Your task to perform on an android device: change the clock display to analog Image 0: 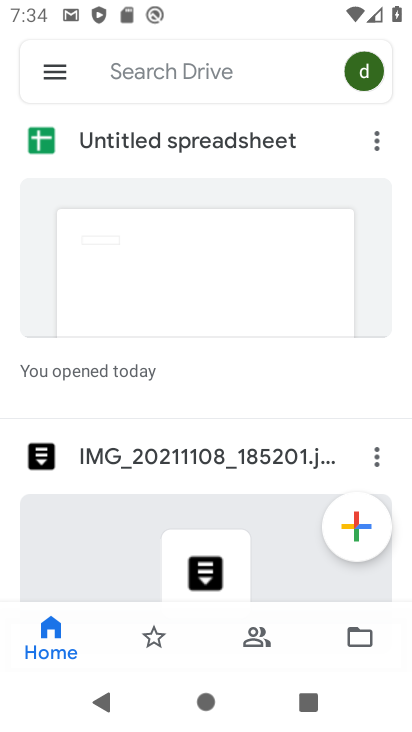
Step 0: press home button
Your task to perform on an android device: change the clock display to analog Image 1: 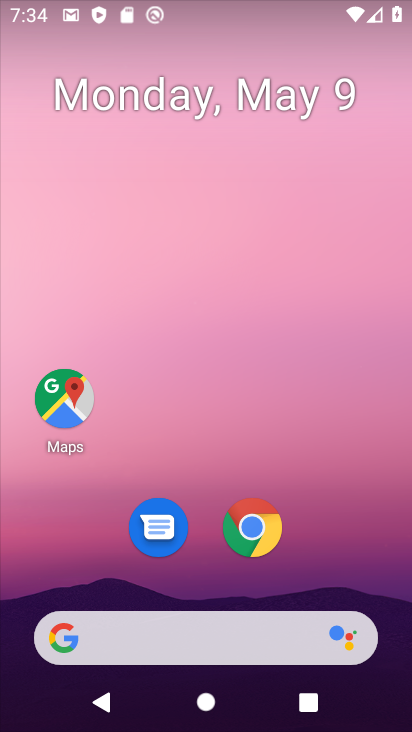
Step 1: drag from (217, 412) to (296, 0)
Your task to perform on an android device: change the clock display to analog Image 2: 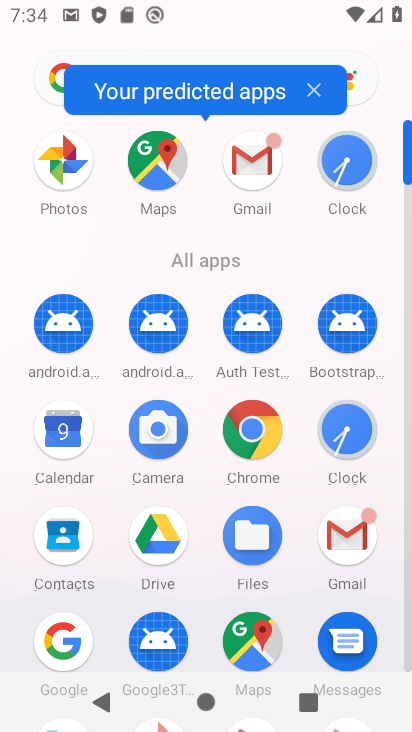
Step 2: click (329, 174)
Your task to perform on an android device: change the clock display to analog Image 3: 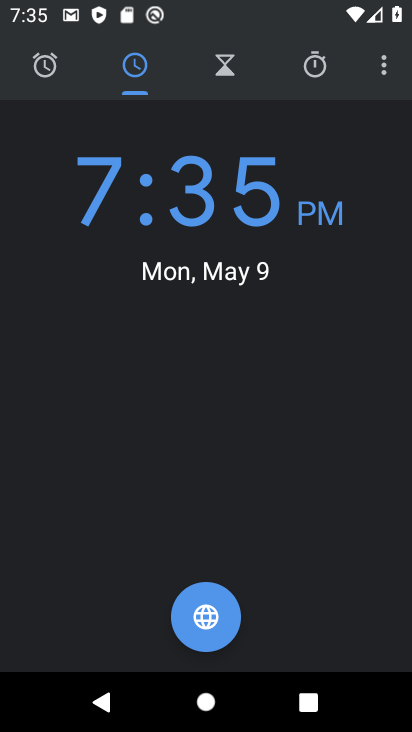
Step 3: click (387, 75)
Your task to perform on an android device: change the clock display to analog Image 4: 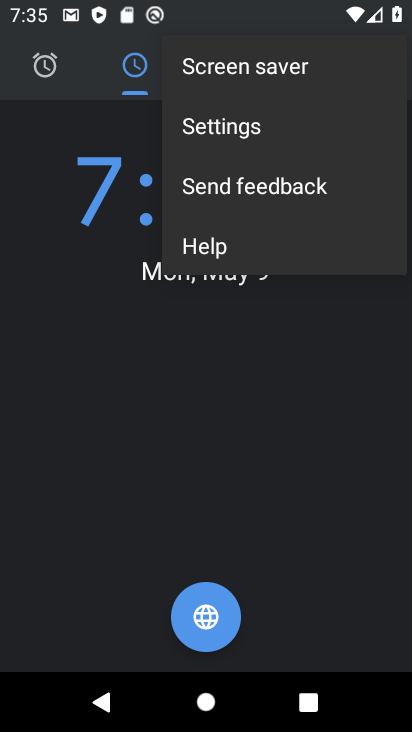
Step 4: click (282, 123)
Your task to perform on an android device: change the clock display to analog Image 5: 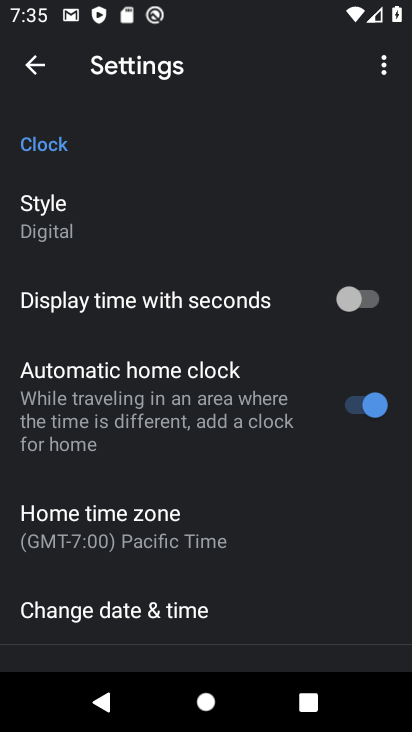
Step 5: click (165, 218)
Your task to perform on an android device: change the clock display to analog Image 6: 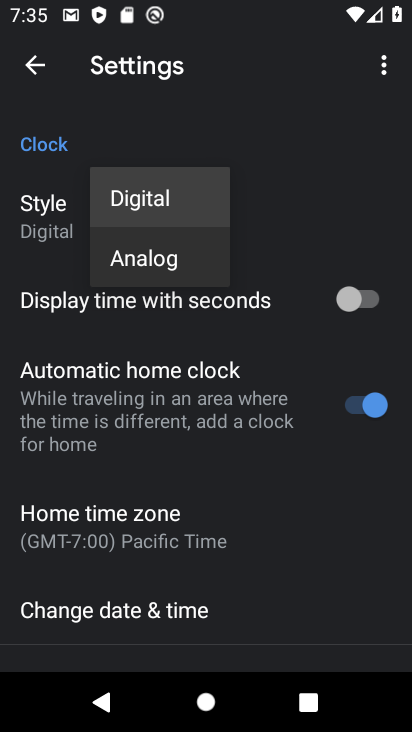
Step 6: click (159, 262)
Your task to perform on an android device: change the clock display to analog Image 7: 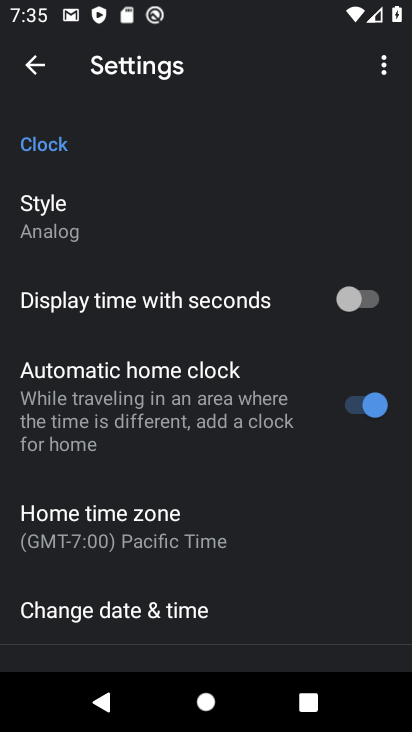
Step 7: task complete